Your task to perform on an android device: turn on the 24-hour format for clock Image 0: 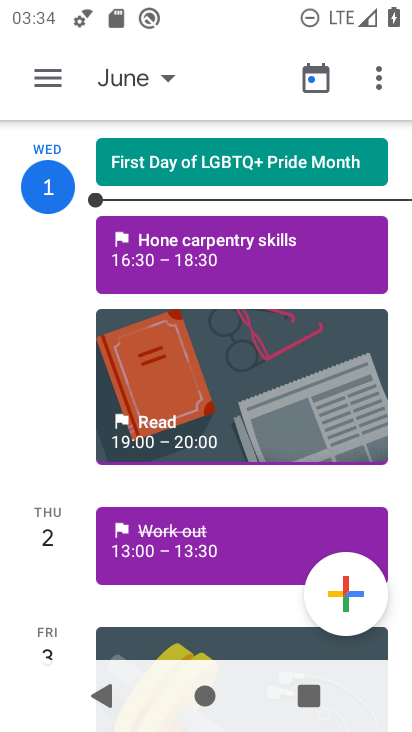
Step 0: press home button
Your task to perform on an android device: turn on the 24-hour format for clock Image 1: 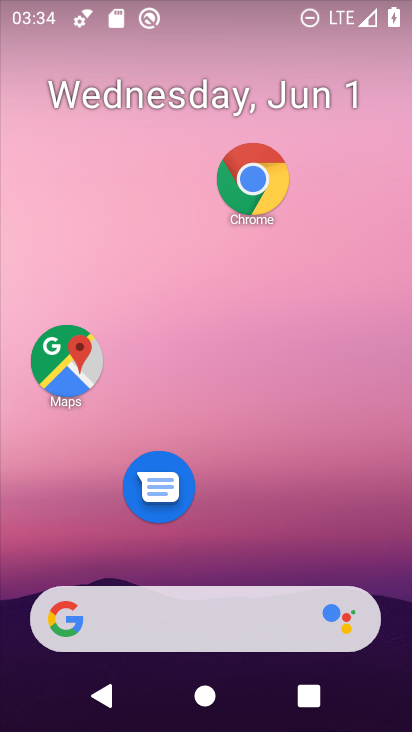
Step 1: drag from (276, 533) to (279, 365)
Your task to perform on an android device: turn on the 24-hour format for clock Image 2: 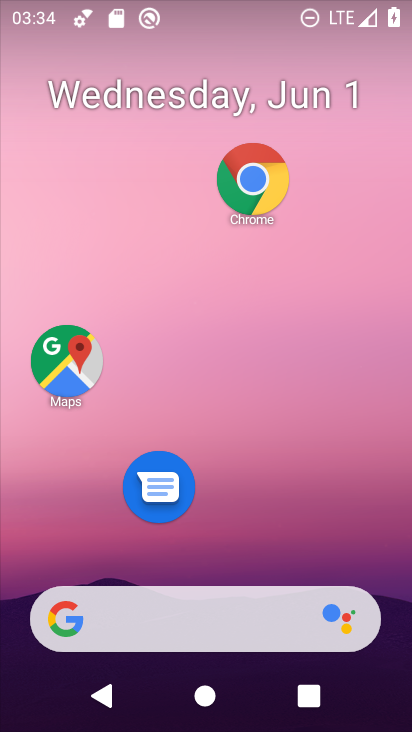
Step 2: drag from (170, 642) to (169, 287)
Your task to perform on an android device: turn on the 24-hour format for clock Image 3: 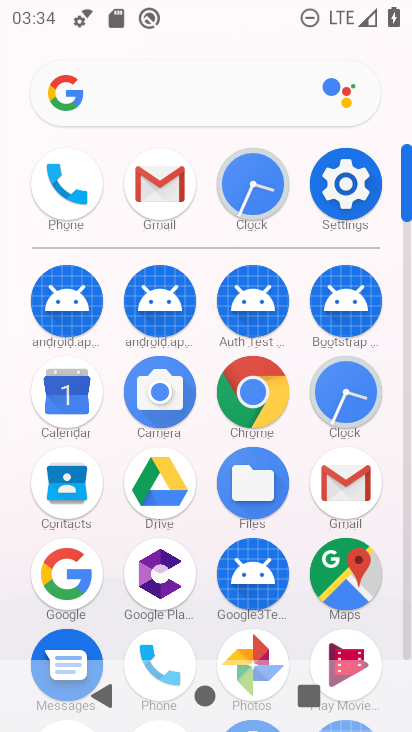
Step 3: click (344, 381)
Your task to perform on an android device: turn on the 24-hour format for clock Image 4: 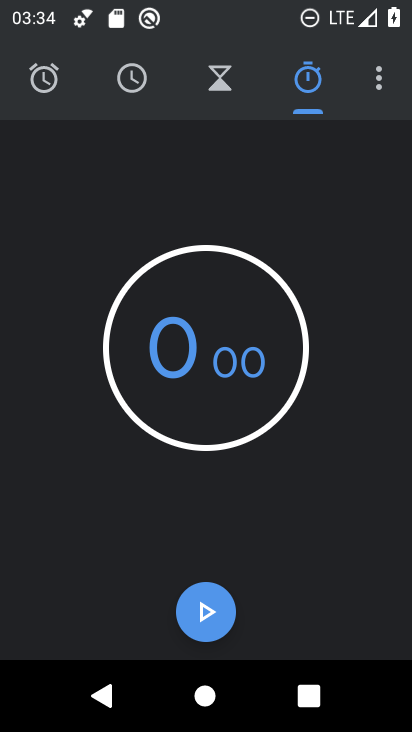
Step 4: click (379, 80)
Your task to perform on an android device: turn on the 24-hour format for clock Image 5: 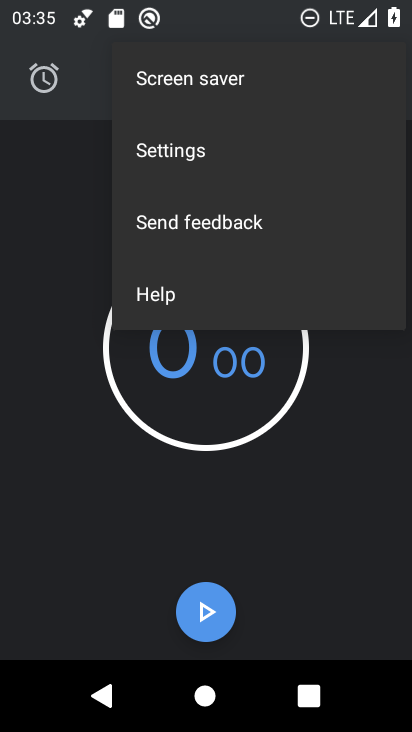
Step 5: click (223, 159)
Your task to perform on an android device: turn on the 24-hour format for clock Image 6: 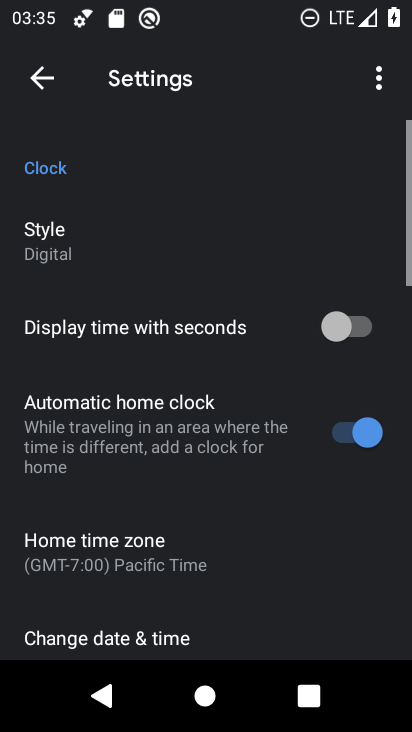
Step 6: drag from (237, 519) to (247, 164)
Your task to perform on an android device: turn on the 24-hour format for clock Image 7: 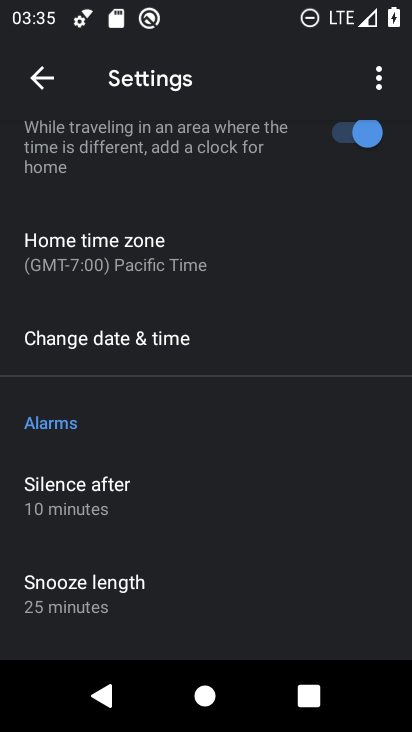
Step 7: click (120, 333)
Your task to perform on an android device: turn on the 24-hour format for clock Image 8: 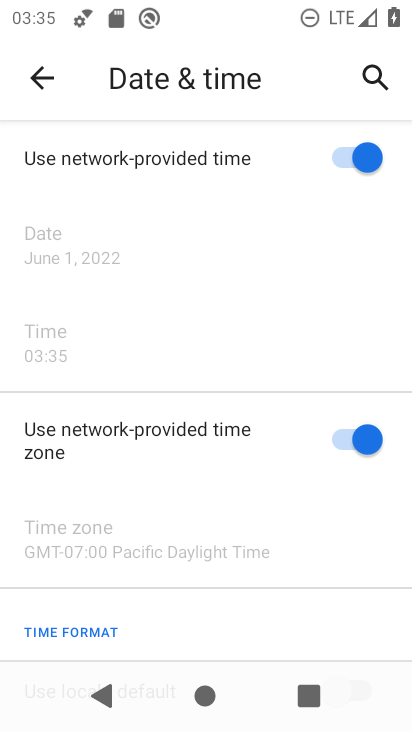
Step 8: drag from (250, 580) to (227, 228)
Your task to perform on an android device: turn on the 24-hour format for clock Image 9: 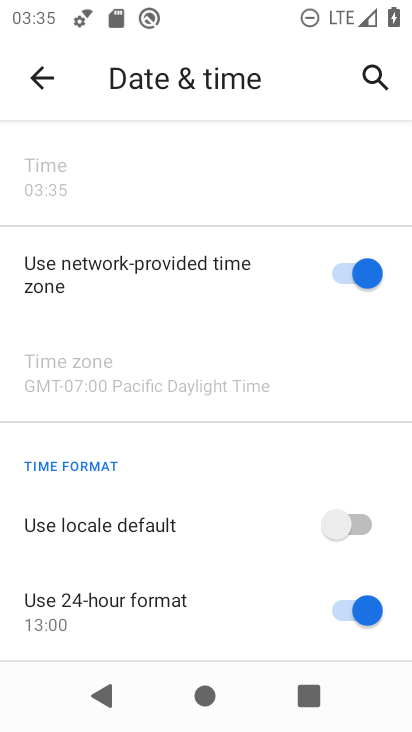
Step 9: click (353, 513)
Your task to perform on an android device: turn on the 24-hour format for clock Image 10: 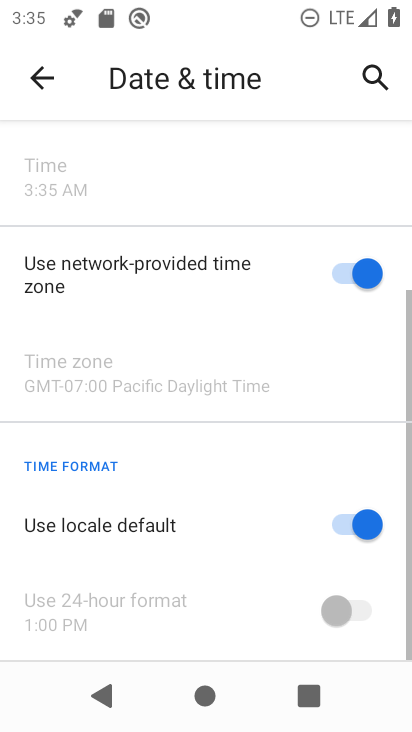
Step 10: click (347, 607)
Your task to perform on an android device: turn on the 24-hour format for clock Image 11: 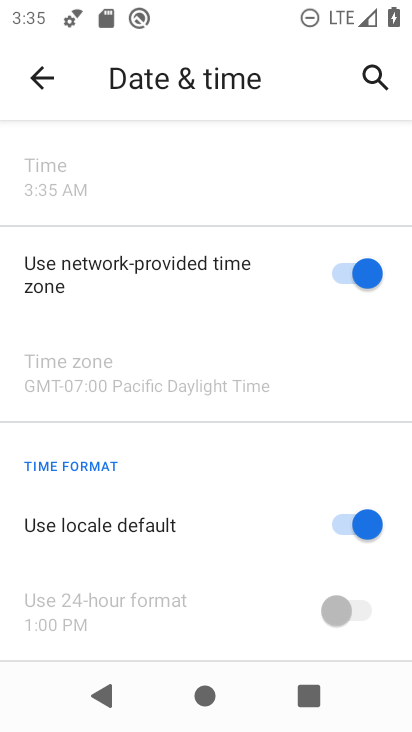
Step 11: task complete